Your task to perform on an android device: Open the Play Movies app and select the watchlist tab. Image 0: 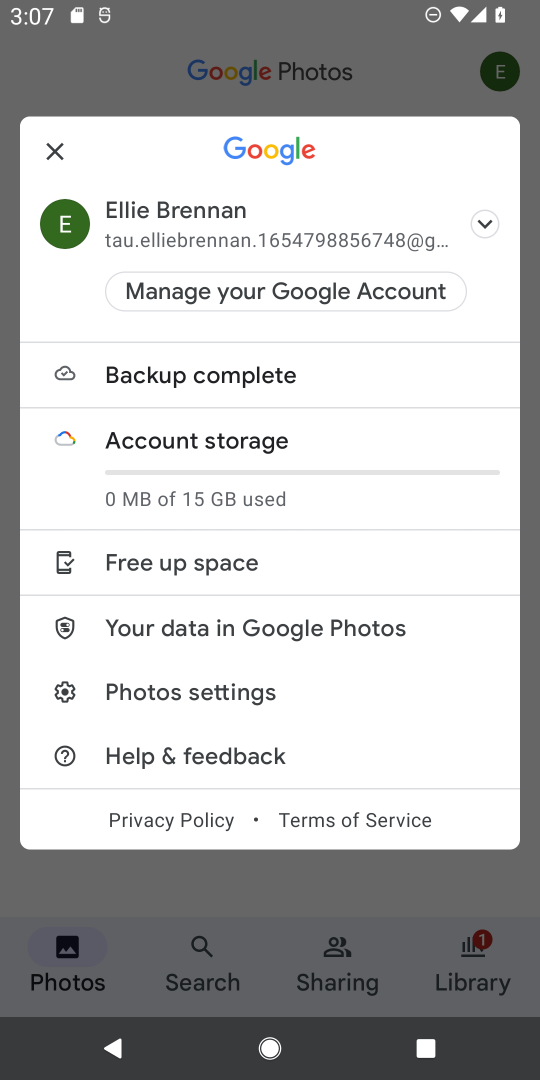
Step 0: press home button
Your task to perform on an android device: Open the Play Movies app and select the watchlist tab. Image 1: 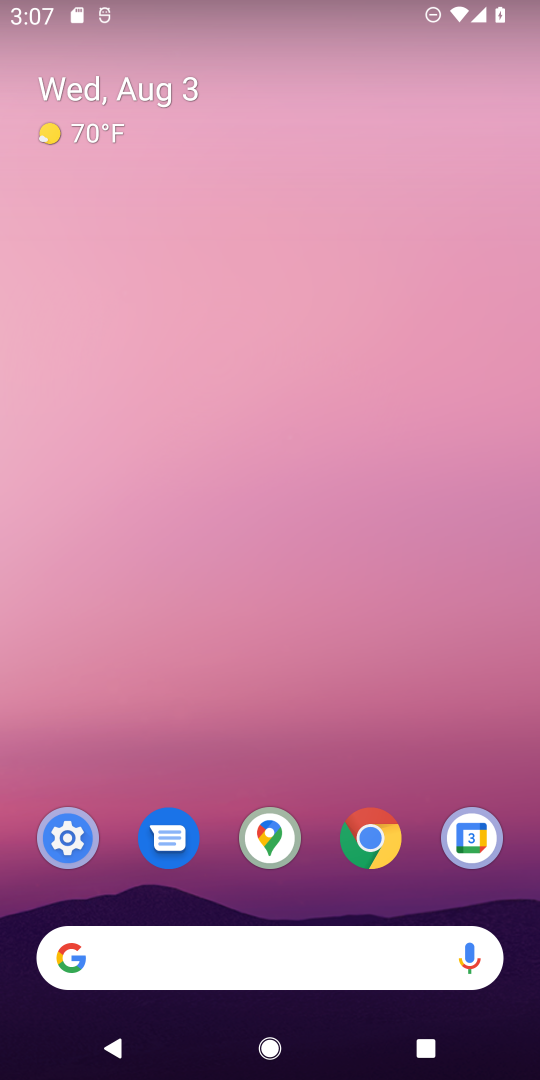
Step 1: drag from (374, 715) to (414, 471)
Your task to perform on an android device: Open the Play Movies app and select the watchlist tab. Image 2: 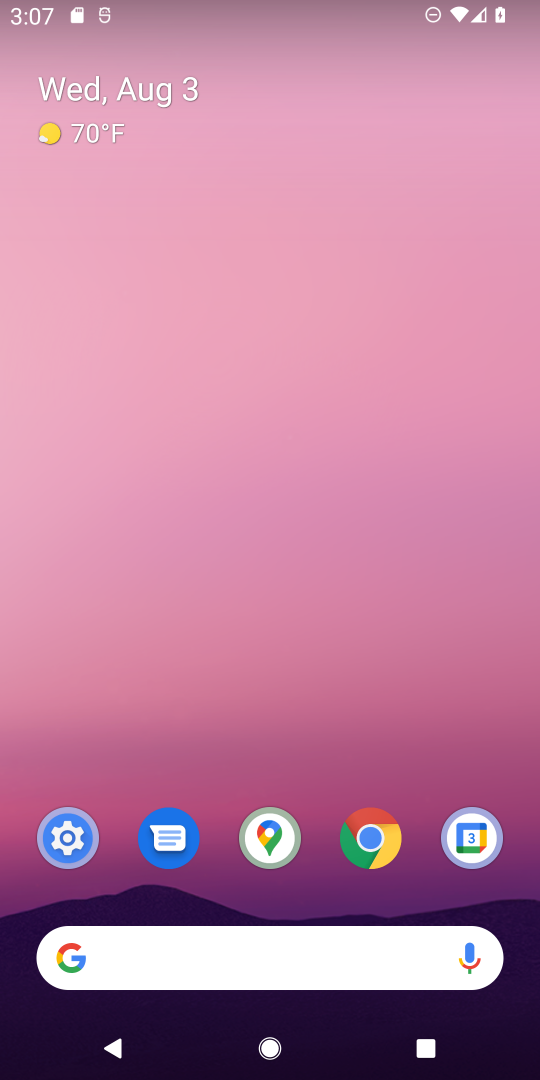
Step 2: drag from (372, 720) to (372, 382)
Your task to perform on an android device: Open the Play Movies app and select the watchlist tab. Image 3: 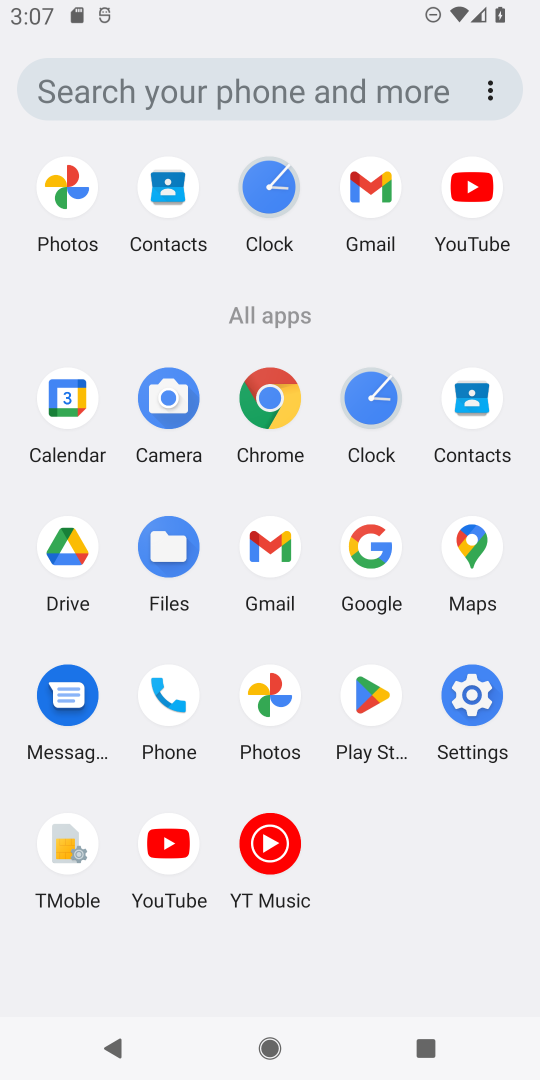
Step 3: click (370, 98)
Your task to perform on an android device: Open the Play Movies app and select the watchlist tab. Image 4: 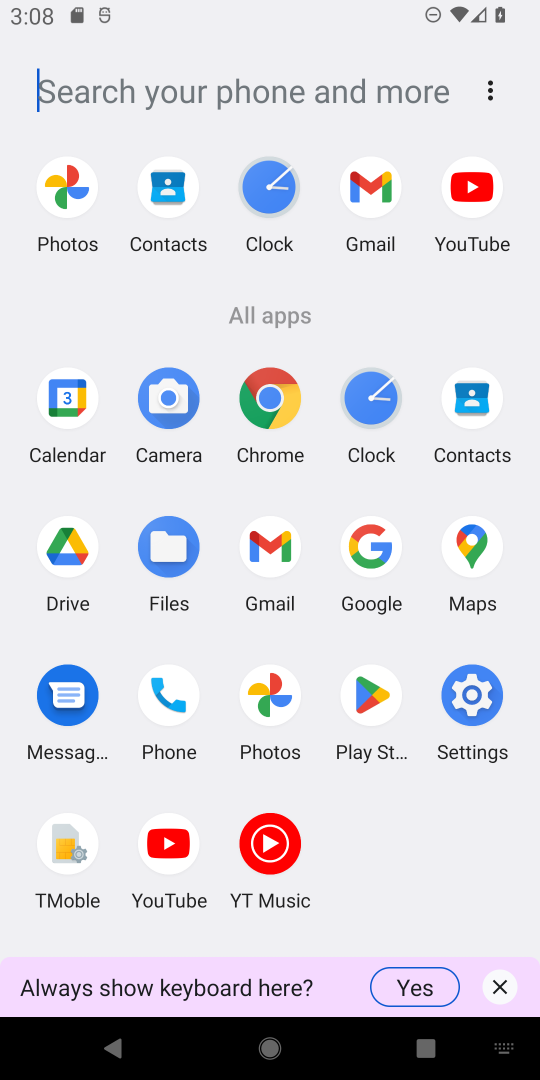
Step 4: type "play movies"
Your task to perform on an android device: Open the Play Movies app and select the watchlist tab. Image 5: 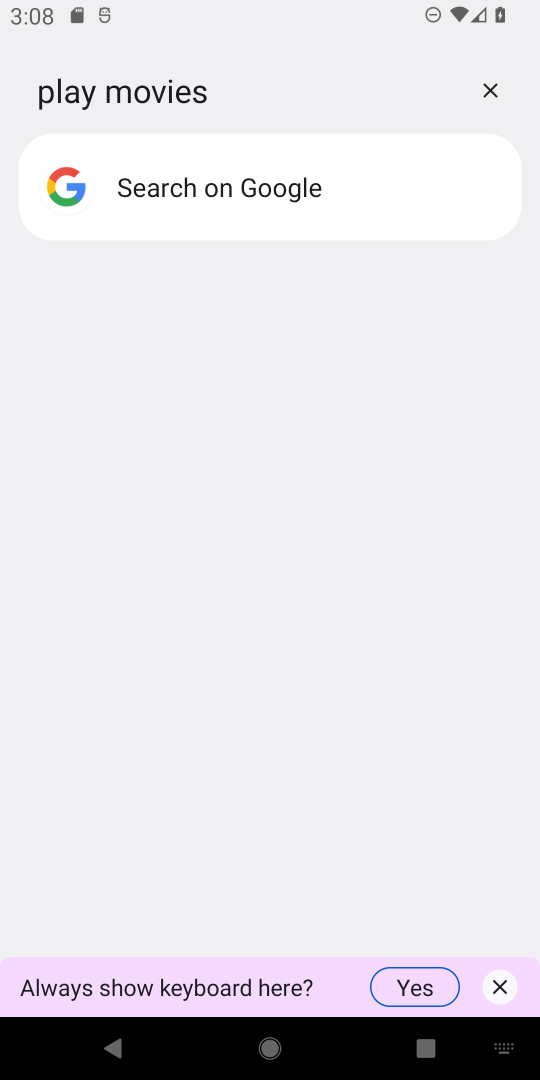
Step 5: task complete